Your task to perform on an android device: Turn on the flashlight Image 0: 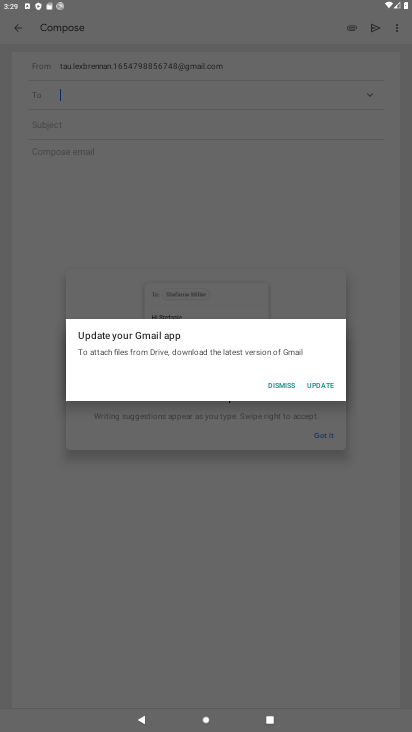
Step 0: press home button
Your task to perform on an android device: Turn on the flashlight Image 1: 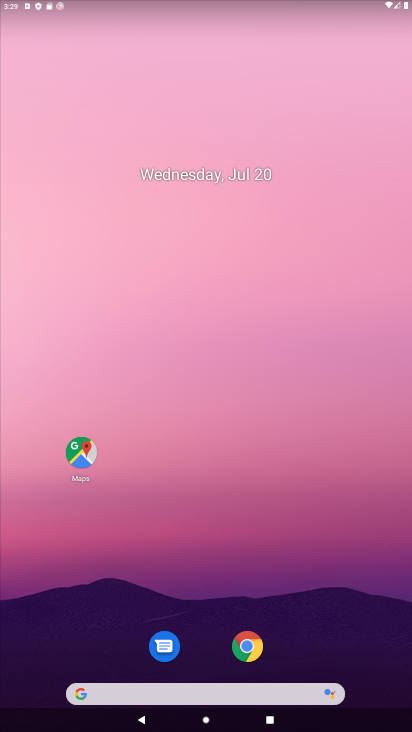
Step 1: drag from (230, 618) to (234, 255)
Your task to perform on an android device: Turn on the flashlight Image 2: 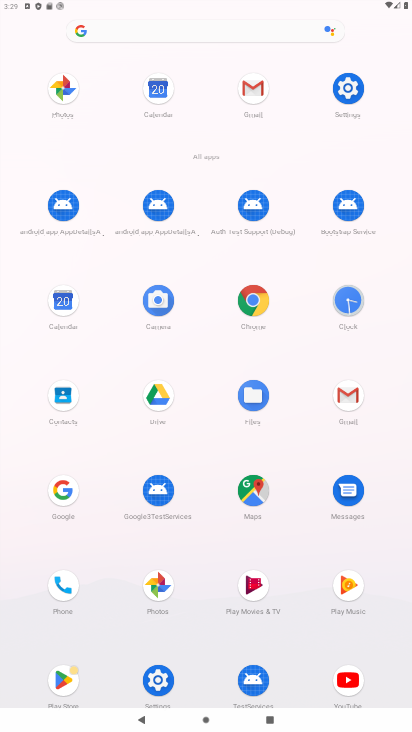
Step 2: click (360, 95)
Your task to perform on an android device: Turn on the flashlight Image 3: 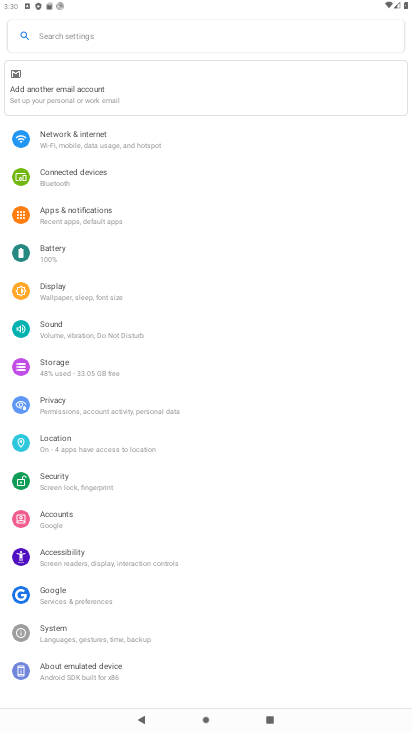
Step 3: task complete